Your task to perform on an android device: Check out the top rated books on Goodreads. Image 0: 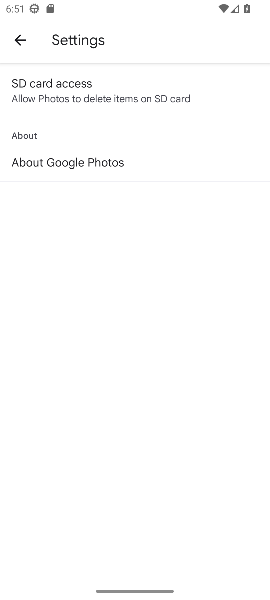
Step 0: press home button
Your task to perform on an android device: Check out the top rated books on Goodreads. Image 1: 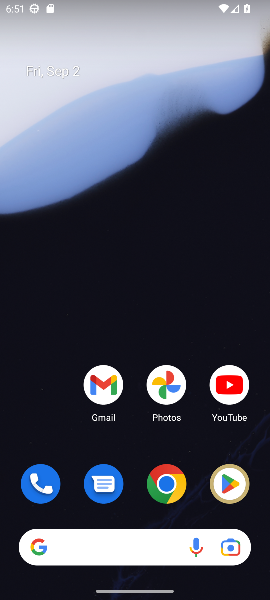
Step 1: click (167, 489)
Your task to perform on an android device: Check out the top rated books on Goodreads. Image 2: 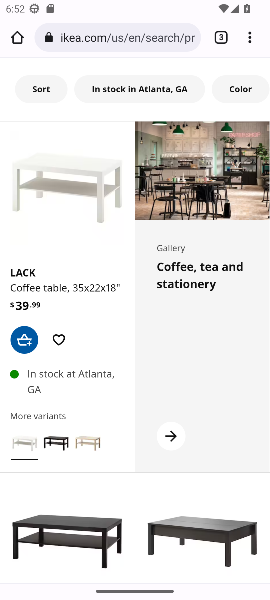
Step 2: press home button
Your task to perform on an android device: Check out the top rated books on Goodreads. Image 3: 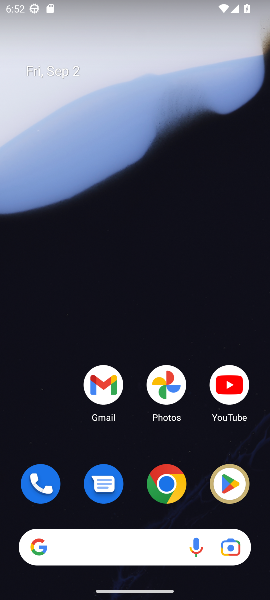
Step 3: click (157, 493)
Your task to perform on an android device: Check out the top rated books on Goodreads. Image 4: 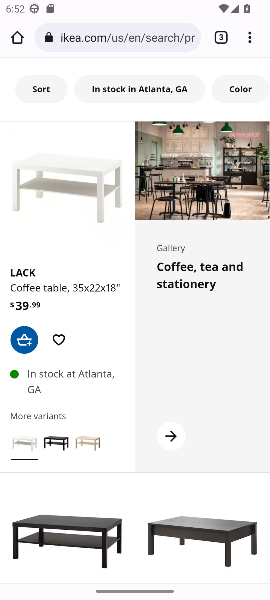
Step 4: click (151, 36)
Your task to perform on an android device: Check out the top rated books on Goodreads. Image 5: 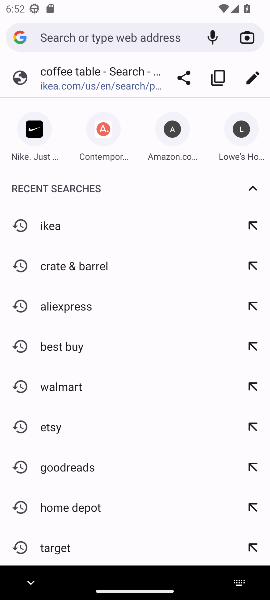
Step 5: type "Goodreads"
Your task to perform on an android device: Check out the top rated books on Goodreads. Image 6: 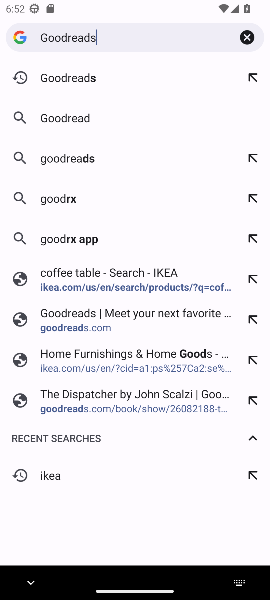
Step 6: press enter
Your task to perform on an android device: Check out the top rated books on Goodreads. Image 7: 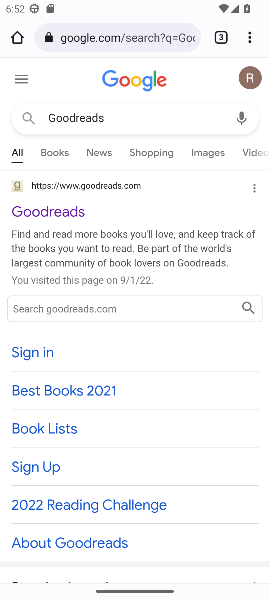
Step 7: click (69, 217)
Your task to perform on an android device: Check out the top rated books on Goodreads. Image 8: 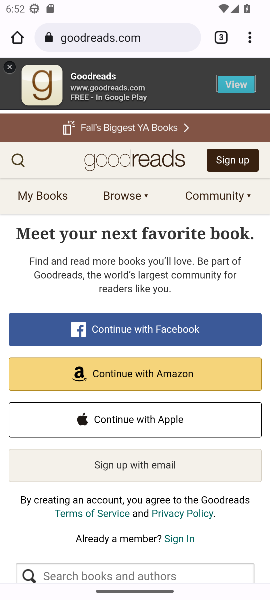
Step 8: click (17, 154)
Your task to perform on an android device: Check out the top rated books on Goodreads. Image 9: 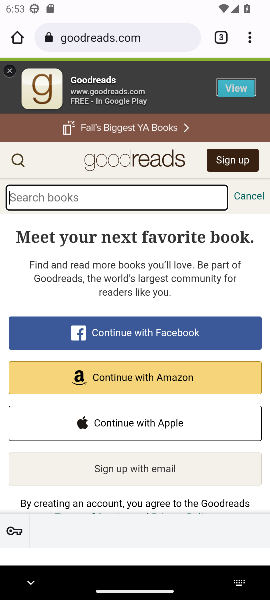
Step 9: type "top rated books "
Your task to perform on an android device: Check out the top rated books on Goodreads. Image 10: 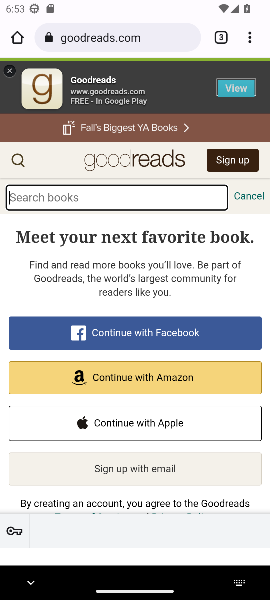
Step 10: press enter
Your task to perform on an android device: Check out the top rated books on Goodreads. Image 11: 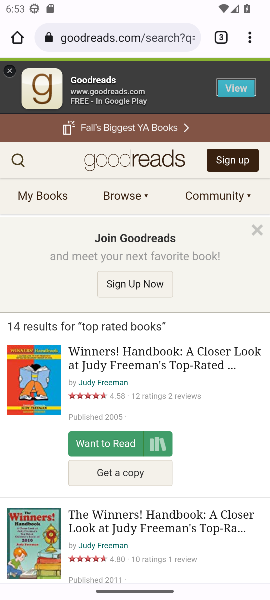
Step 11: task complete